Your task to perform on an android device: turn on javascript in the chrome app Image 0: 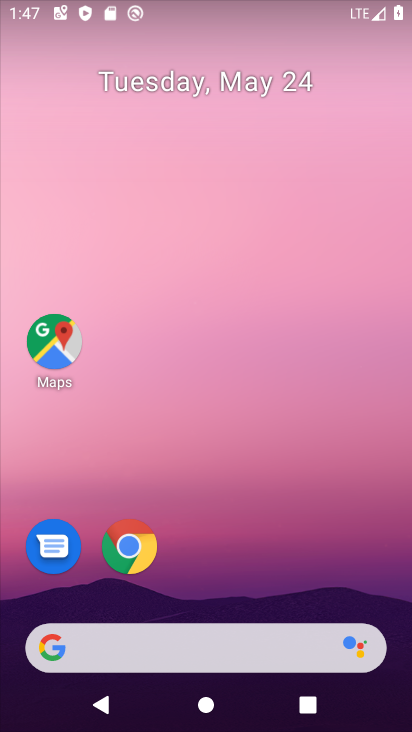
Step 0: drag from (175, 447) to (214, 223)
Your task to perform on an android device: turn on javascript in the chrome app Image 1: 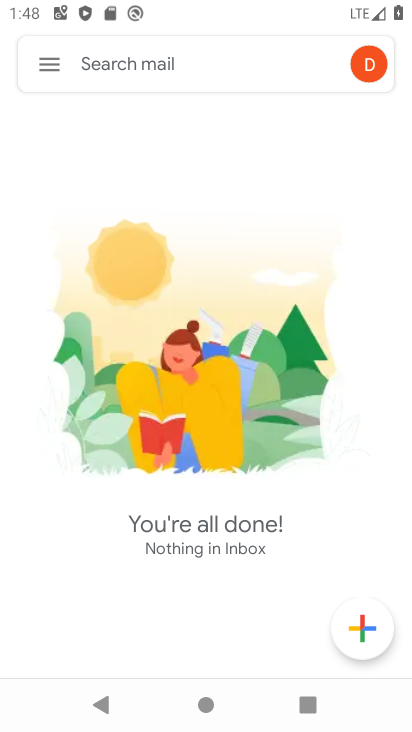
Step 1: press home button
Your task to perform on an android device: turn on javascript in the chrome app Image 2: 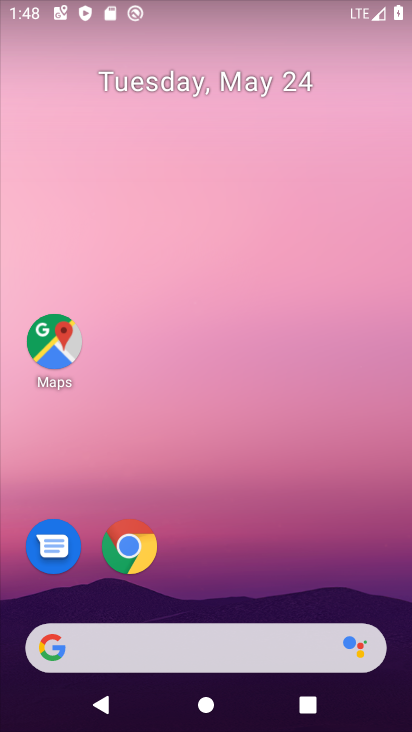
Step 2: drag from (192, 593) to (209, 198)
Your task to perform on an android device: turn on javascript in the chrome app Image 3: 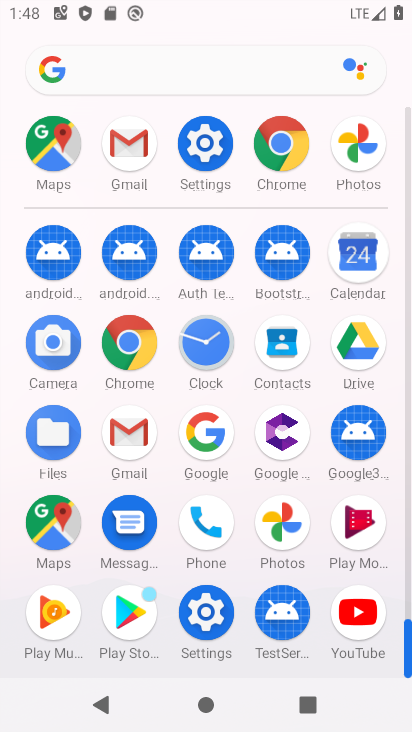
Step 3: click (284, 146)
Your task to perform on an android device: turn on javascript in the chrome app Image 4: 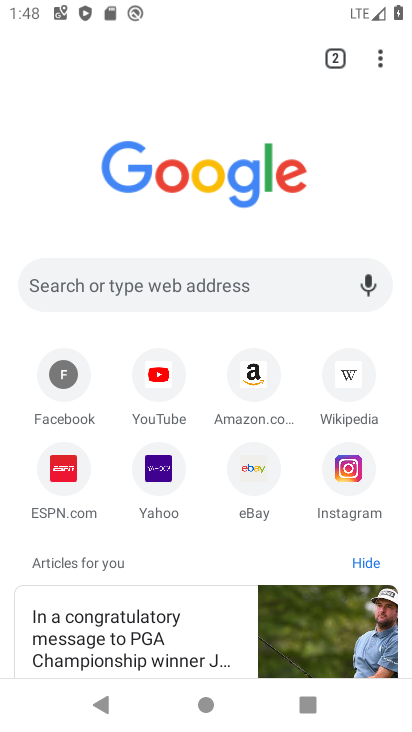
Step 4: click (375, 53)
Your task to perform on an android device: turn on javascript in the chrome app Image 5: 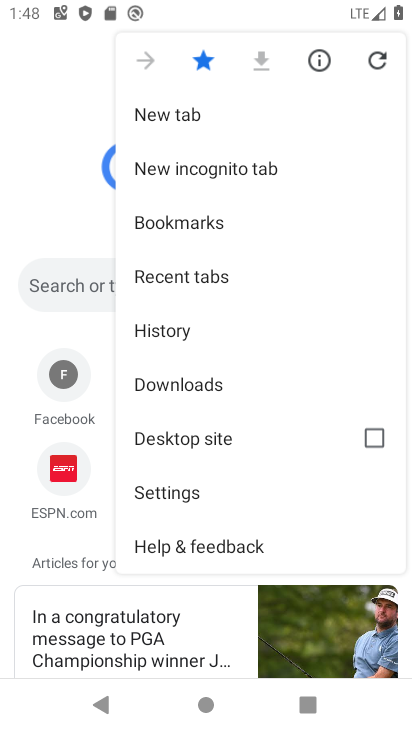
Step 5: click (200, 495)
Your task to perform on an android device: turn on javascript in the chrome app Image 6: 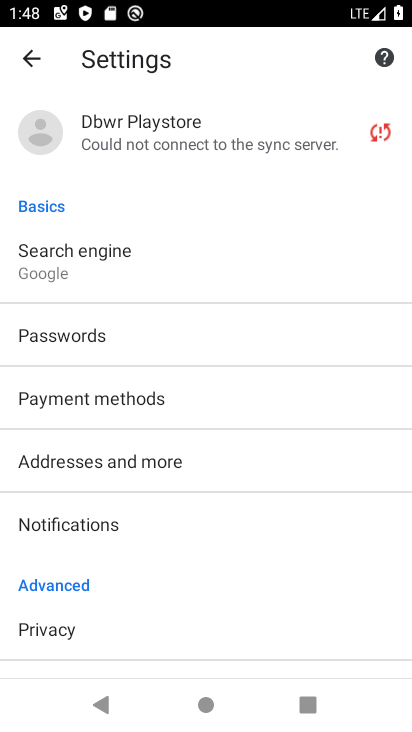
Step 6: drag from (177, 463) to (310, 114)
Your task to perform on an android device: turn on javascript in the chrome app Image 7: 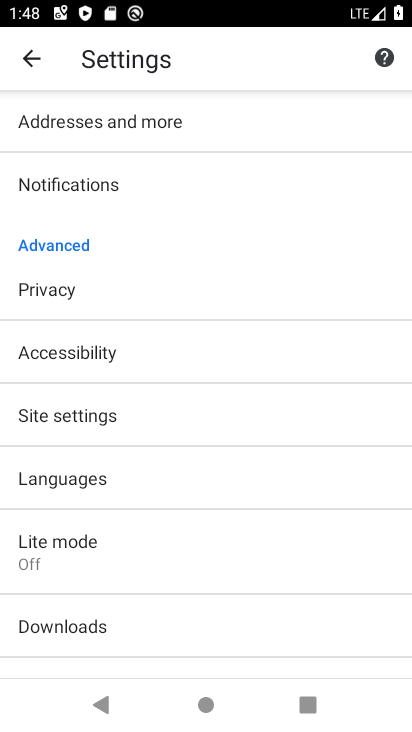
Step 7: click (104, 409)
Your task to perform on an android device: turn on javascript in the chrome app Image 8: 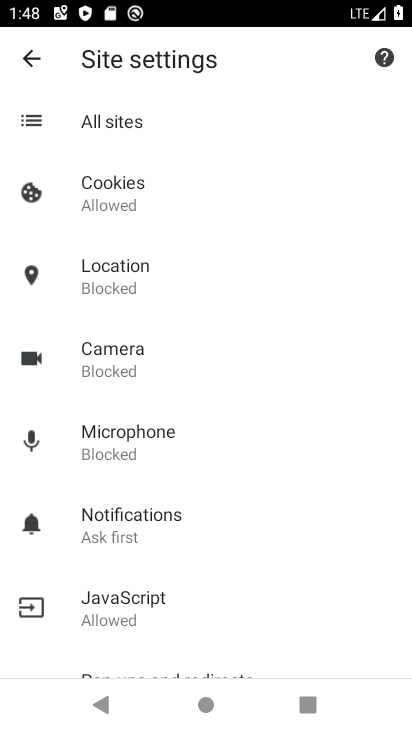
Step 8: click (134, 621)
Your task to perform on an android device: turn on javascript in the chrome app Image 9: 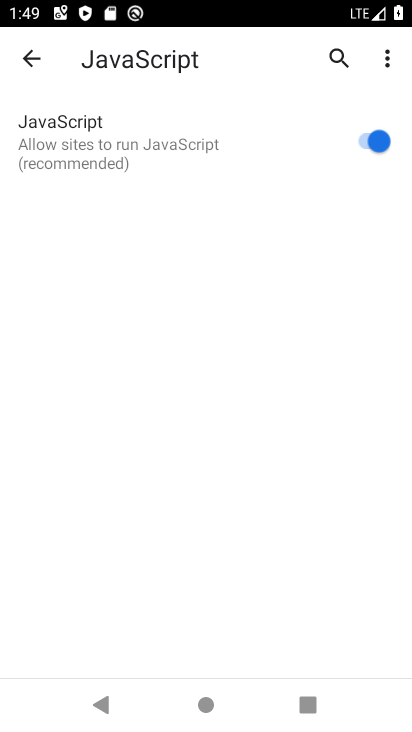
Step 9: task complete